Your task to perform on an android device: turn on improve location accuracy Image 0: 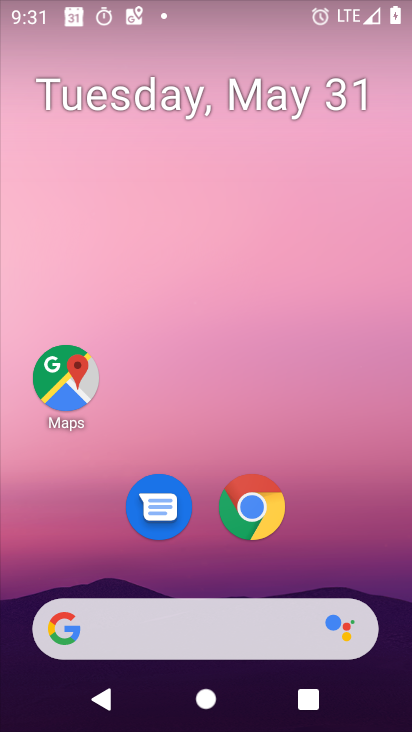
Step 0: drag from (47, 594) to (300, 93)
Your task to perform on an android device: turn on improve location accuracy Image 1: 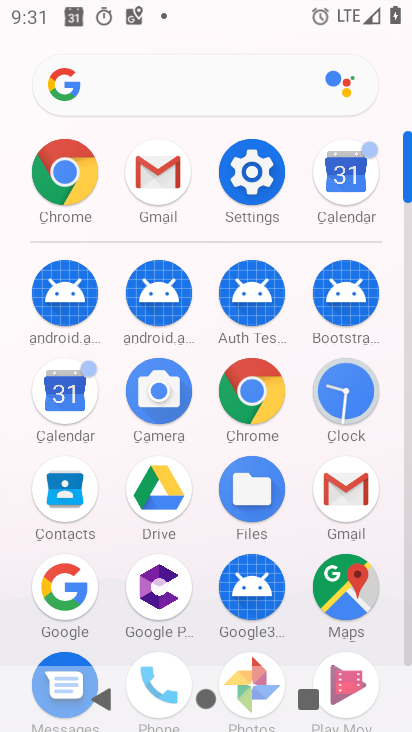
Step 1: click (243, 168)
Your task to perform on an android device: turn on improve location accuracy Image 2: 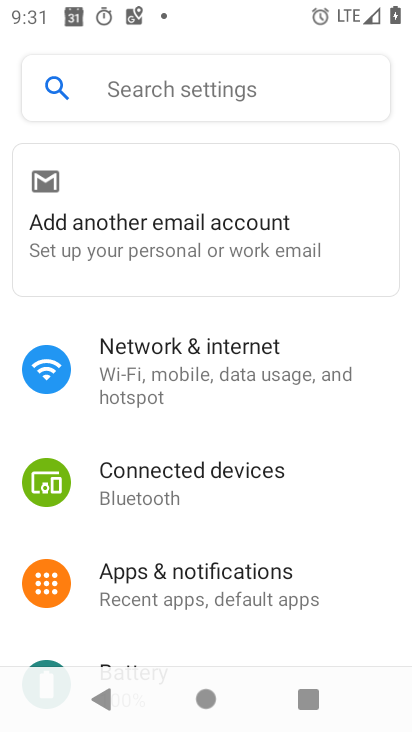
Step 2: drag from (42, 457) to (271, 103)
Your task to perform on an android device: turn on improve location accuracy Image 3: 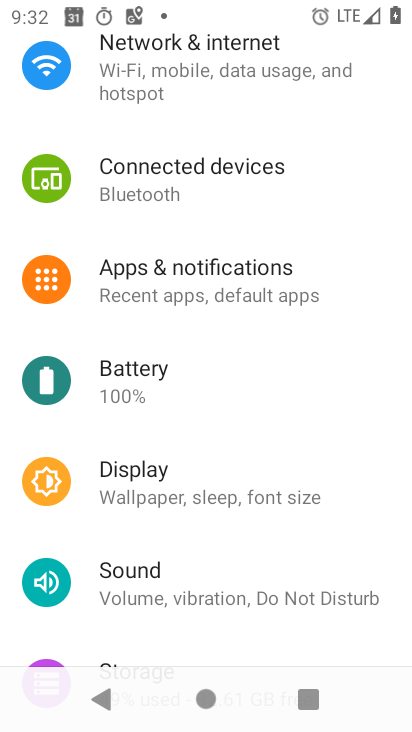
Step 3: drag from (12, 559) to (281, 153)
Your task to perform on an android device: turn on improve location accuracy Image 4: 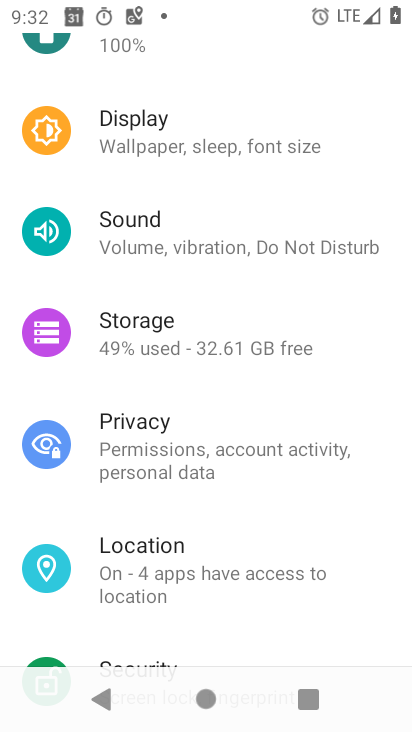
Step 4: click (137, 563)
Your task to perform on an android device: turn on improve location accuracy Image 5: 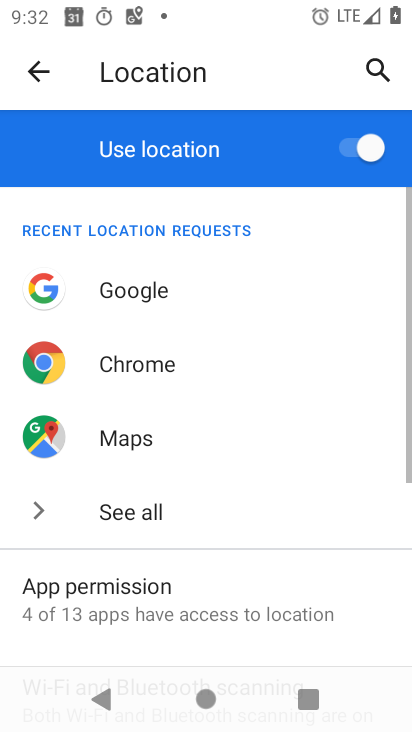
Step 5: drag from (15, 448) to (219, 171)
Your task to perform on an android device: turn on improve location accuracy Image 6: 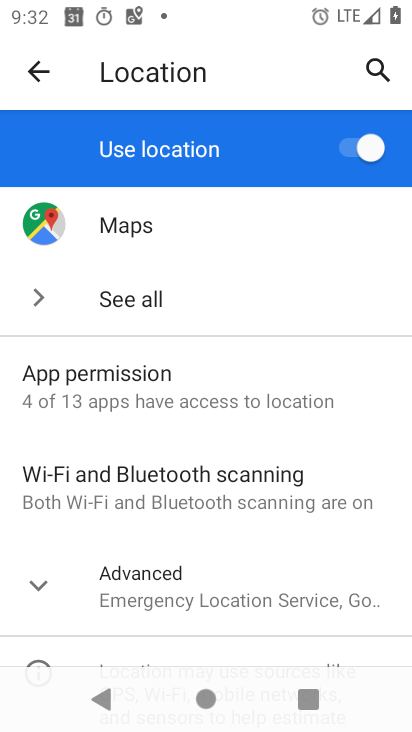
Step 6: click (132, 594)
Your task to perform on an android device: turn on improve location accuracy Image 7: 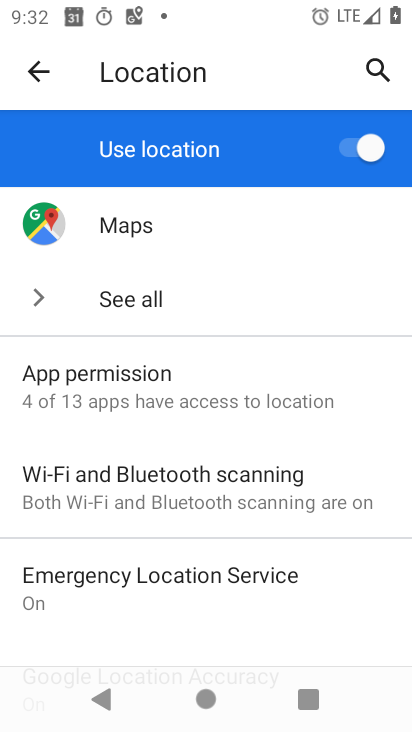
Step 7: drag from (63, 492) to (251, 194)
Your task to perform on an android device: turn on improve location accuracy Image 8: 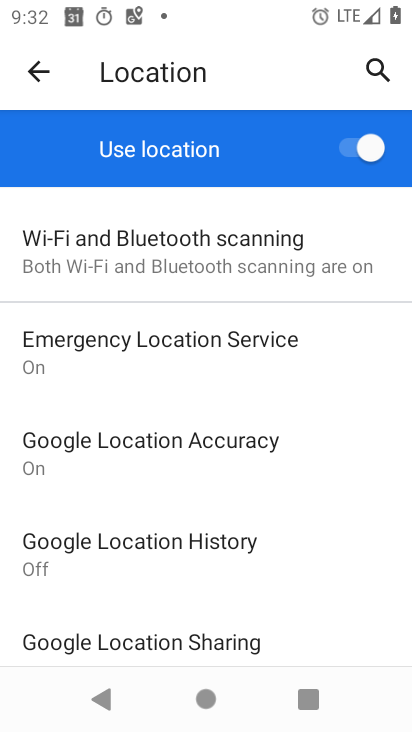
Step 8: click (180, 443)
Your task to perform on an android device: turn on improve location accuracy Image 9: 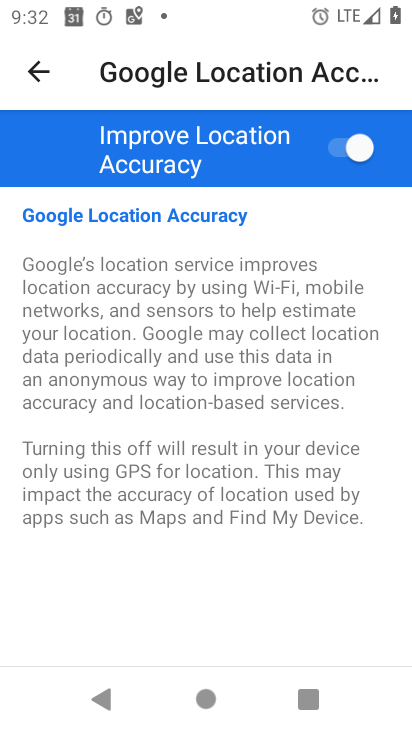
Step 9: click (362, 157)
Your task to perform on an android device: turn on improve location accuracy Image 10: 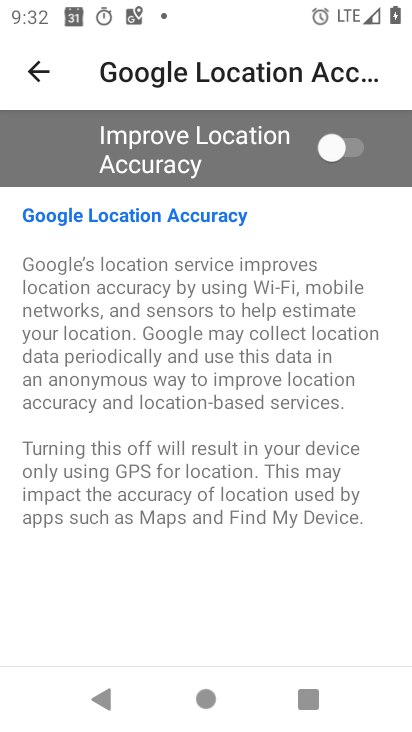
Step 10: click (341, 145)
Your task to perform on an android device: turn on improve location accuracy Image 11: 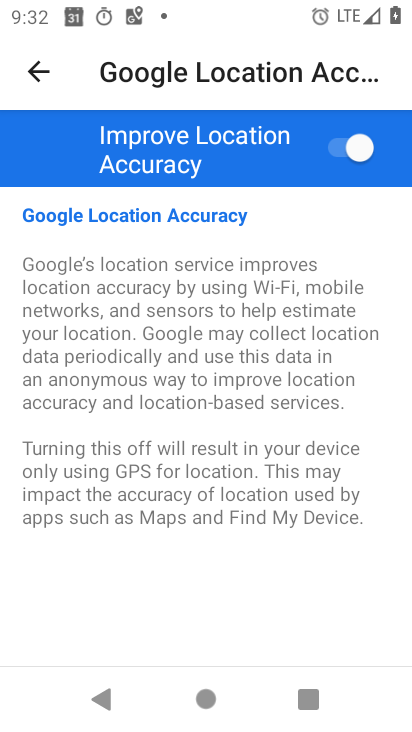
Step 11: task complete